Your task to perform on an android device: Open calendar and show me the third week of next month Image 0: 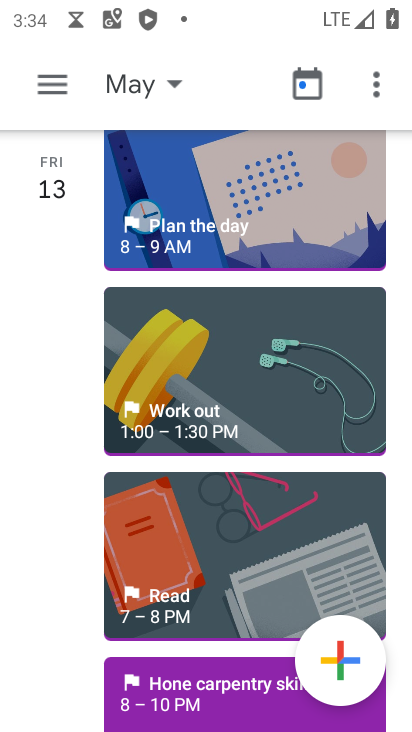
Step 0: press home button
Your task to perform on an android device: Open calendar and show me the third week of next month Image 1: 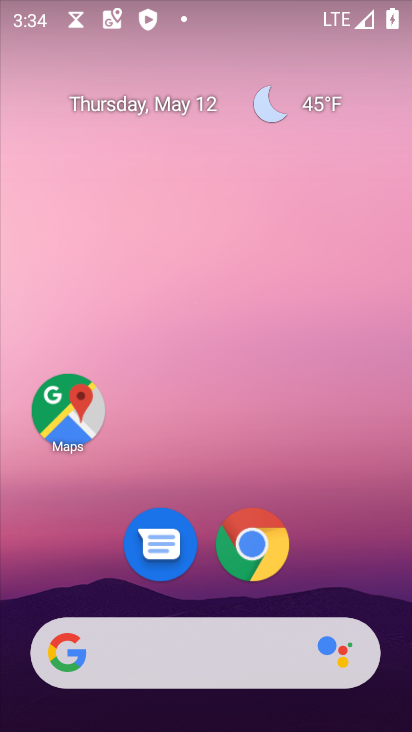
Step 1: drag from (323, 584) to (254, 71)
Your task to perform on an android device: Open calendar and show me the third week of next month Image 2: 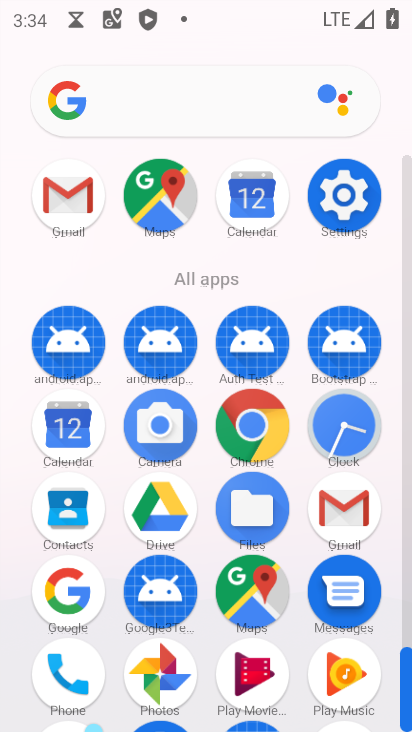
Step 2: click (57, 433)
Your task to perform on an android device: Open calendar and show me the third week of next month Image 3: 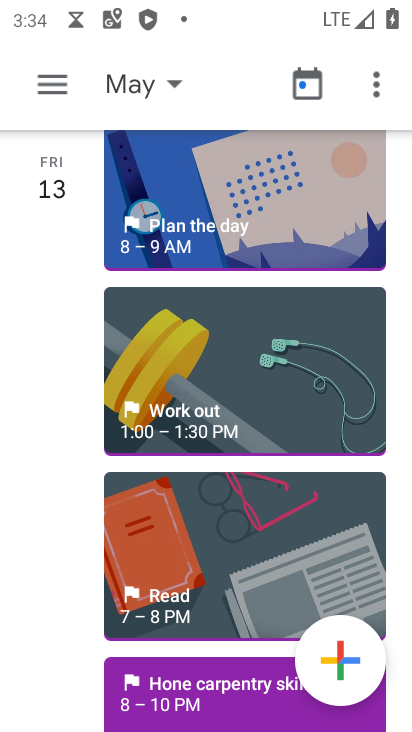
Step 3: click (134, 90)
Your task to perform on an android device: Open calendar and show me the third week of next month Image 4: 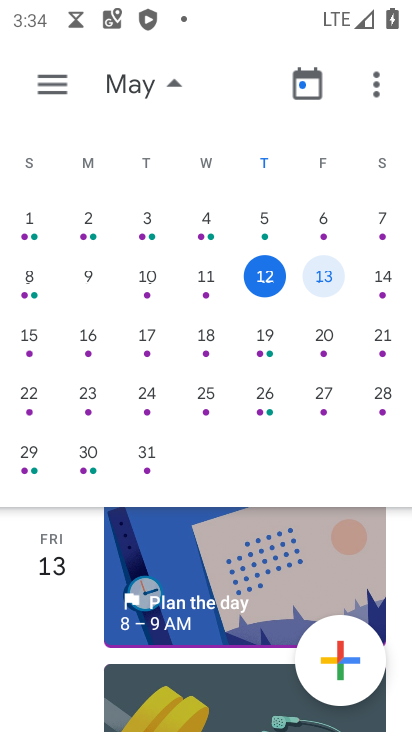
Step 4: drag from (346, 318) to (37, 326)
Your task to perform on an android device: Open calendar and show me the third week of next month Image 5: 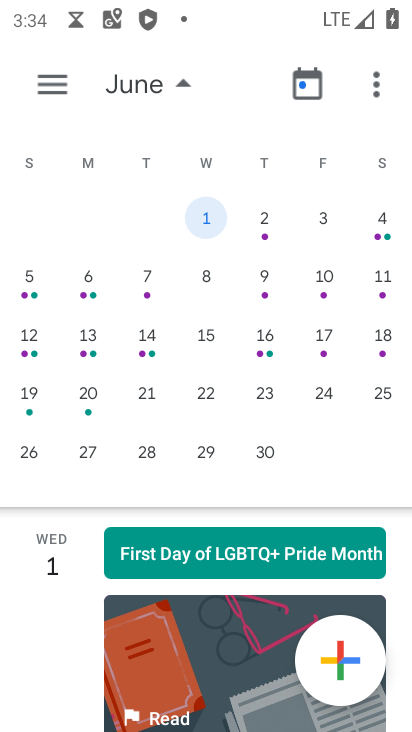
Step 5: click (37, 336)
Your task to perform on an android device: Open calendar and show me the third week of next month Image 6: 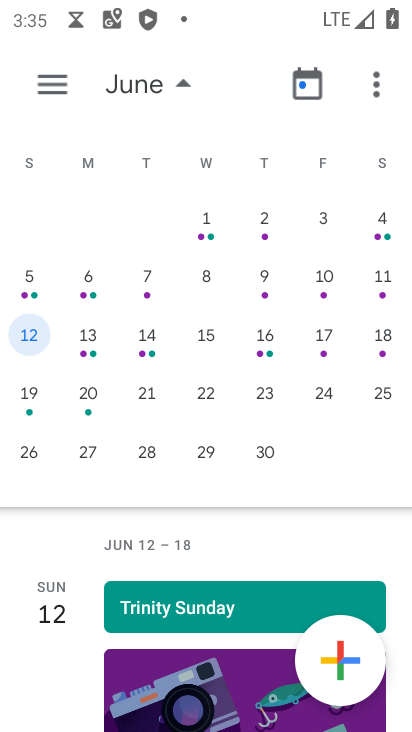
Step 6: task complete